Your task to perform on an android device: Go to notification settings Image 0: 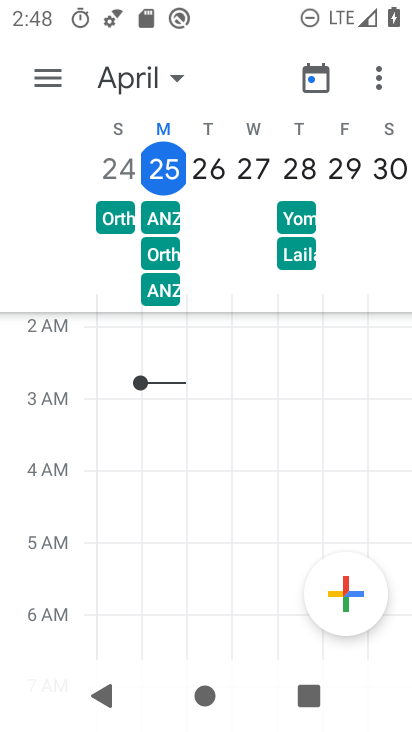
Step 0: press home button
Your task to perform on an android device: Go to notification settings Image 1: 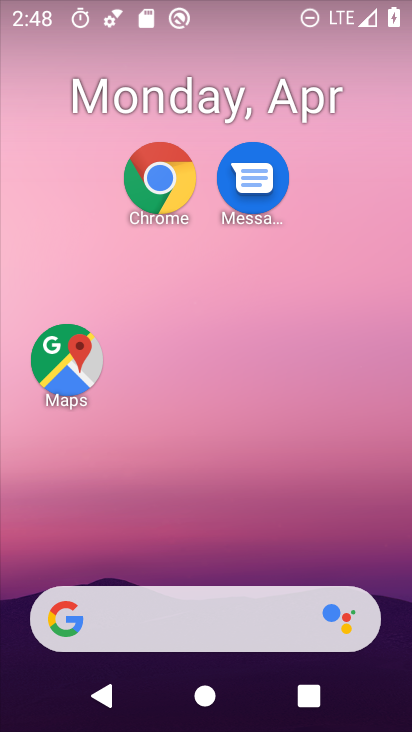
Step 1: drag from (235, 508) to (205, 21)
Your task to perform on an android device: Go to notification settings Image 2: 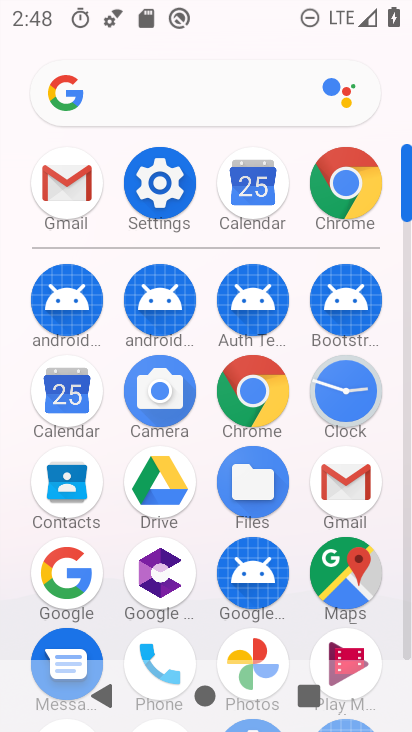
Step 2: drag from (280, 617) to (299, 93)
Your task to perform on an android device: Go to notification settings Image 3: 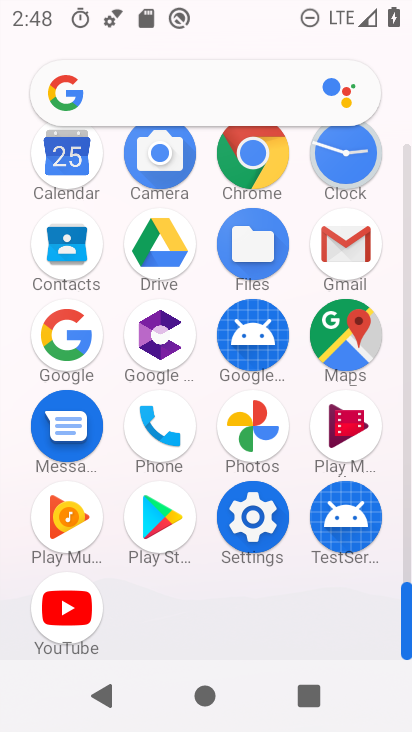
Step 3: click (271, 526)
Your task to perform on an android device: Go to notification settings Image 4: 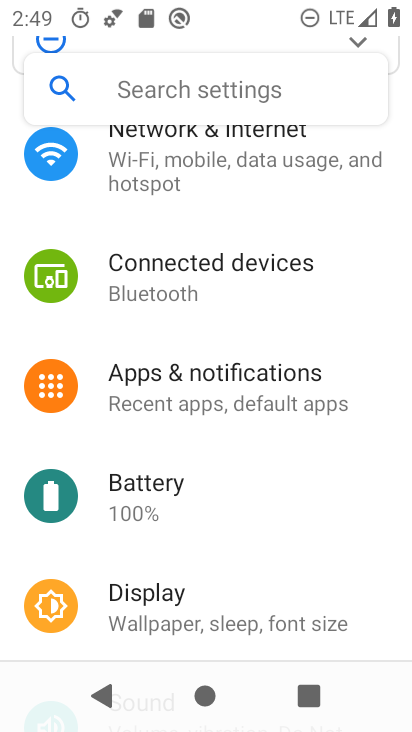
Step 4: click (228, 374)
Your task to perform on an android device: Go to notification settings Image 5: 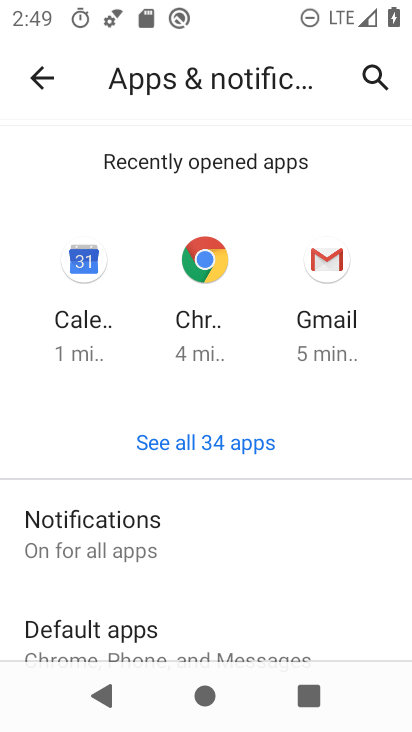
Step 5: drag from (164, 624) to (213, 131)
Your task to perform on an android device: Go to notification settings Image 6: 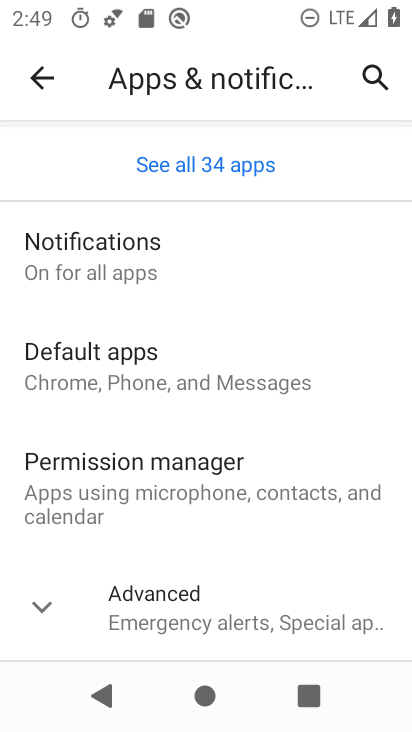
Step 6: click (183, 259)
Your task to perform on an android device: Go to notification settings Image 7: 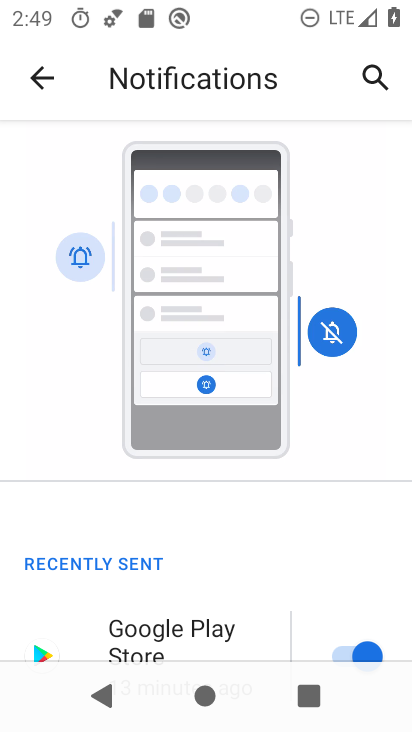
Step 7: drag from (205, 598) to (238, 125)
Your task to perform on an android device: Go to notification settings Image 8: 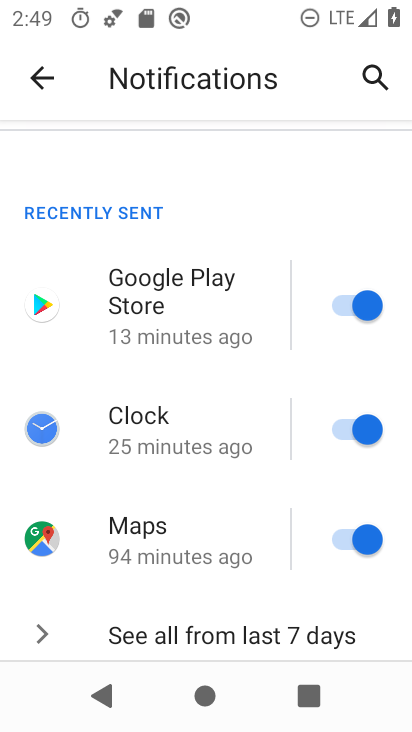
Step 8: drag from (228, 254) to (223, 607)
Your task to perform on an android device: Go to notification settings Image 9: 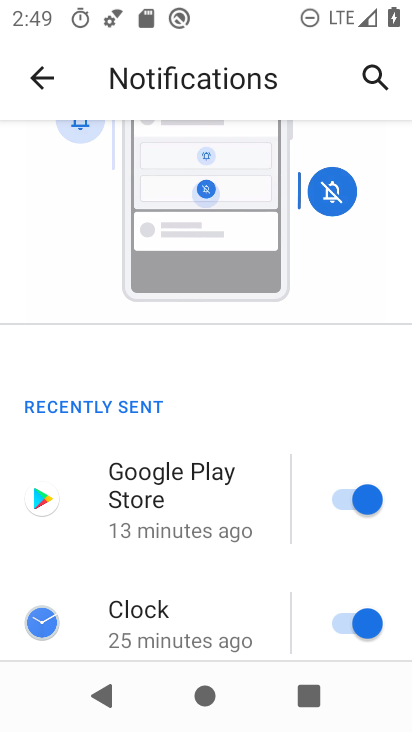
Step 9: click (342, 184)
Your task to perform on an android device: Go to notification settings Image 10: 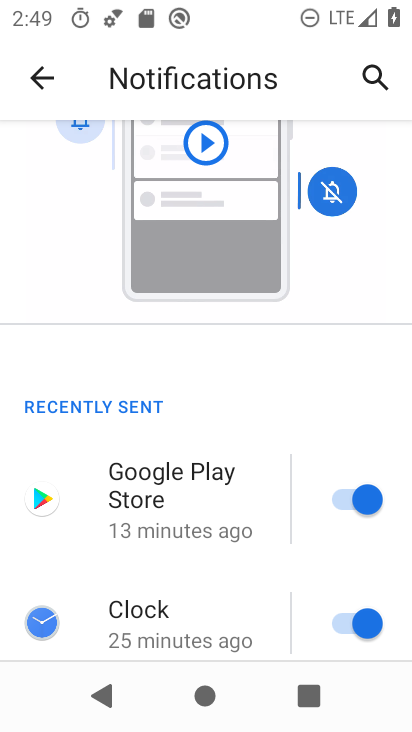
Step 10: task complete